Your task to perform on an android device: Open settings on Google Maps Image 0: 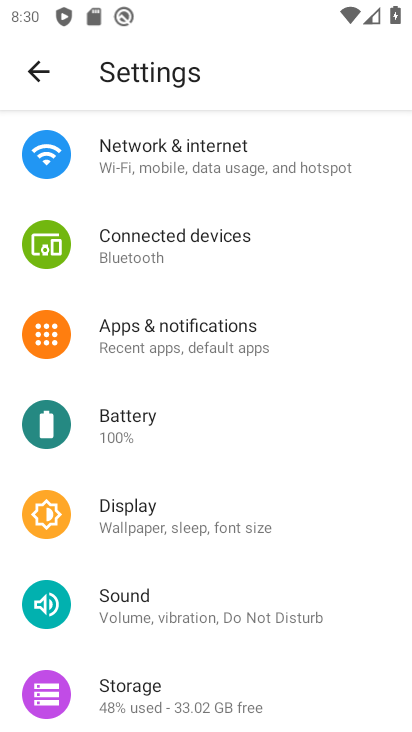
Step 0: press home button
Your task to perform on an android device: Open settings on Google Maps Image 1: 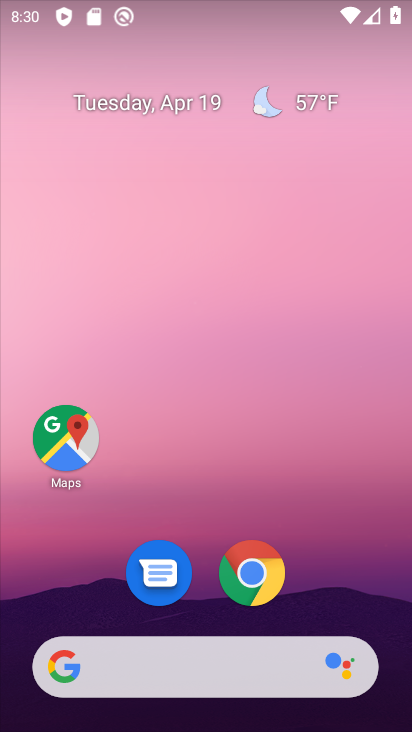
Step 1: click (76, 431)
Your task to perform on an android device: Open settings on Google Maps Image 2: 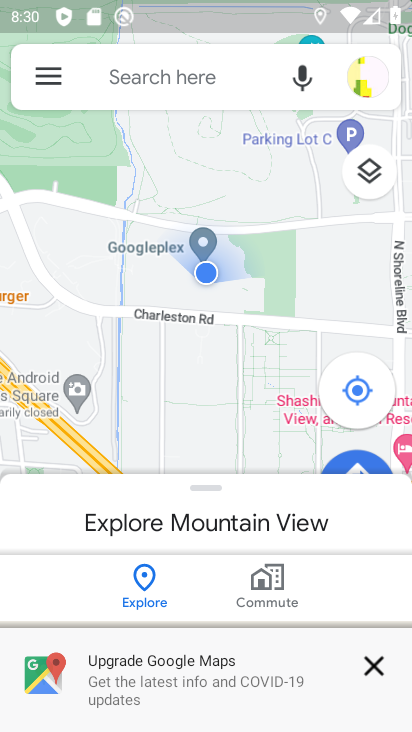
Step 2: click (44, 72)
Your task to perform on an android device: Open settings on Google Maps Image 3: 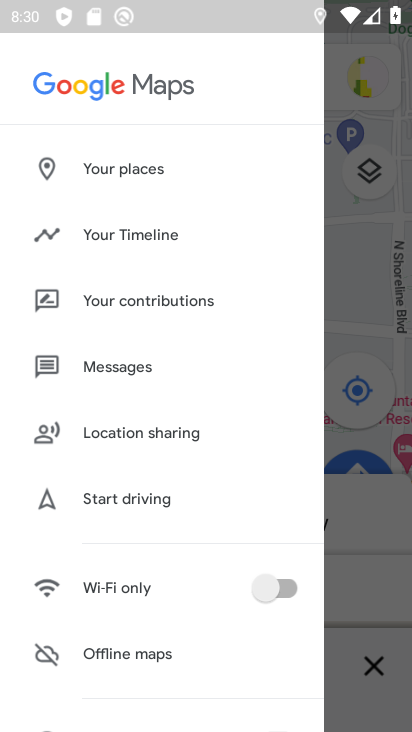
Step 3: drag from (164, 585) to (195, 168)
Your task to perform on an android device: Open settings on Google Maps Image 4: 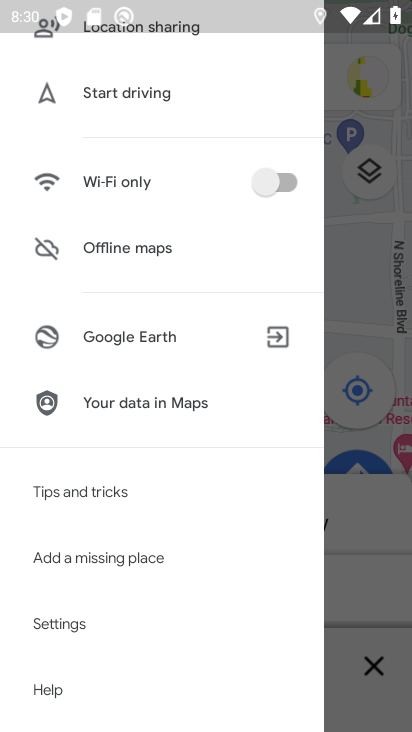
Step 4: click (59, 627)
Your task to perform on an android device: Open settings on Google Maps Image 5: 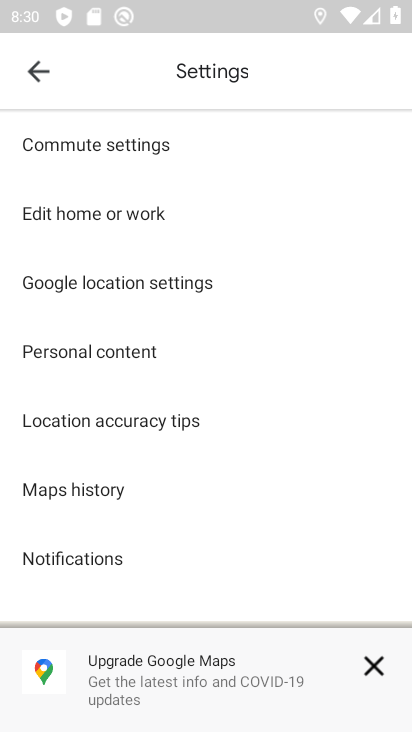
Step 5: task complete